Your task to perform on an android device: show emergency info Image 0: 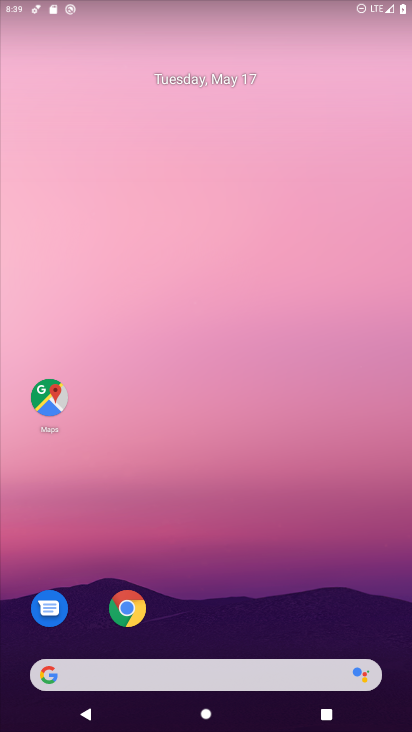
Step 0: drag from (248, 640) to (355, 56)
Your task to perform on an android device: show emergency info Image 1: 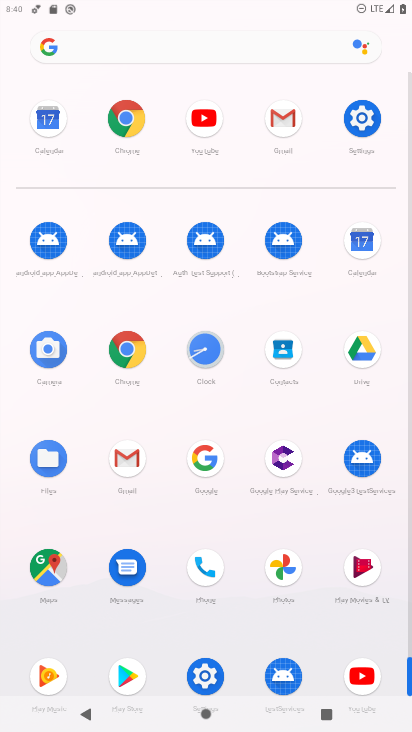
Step 1: click (207, 663)
Your task to perform on an android device: show emergency info Image 2: 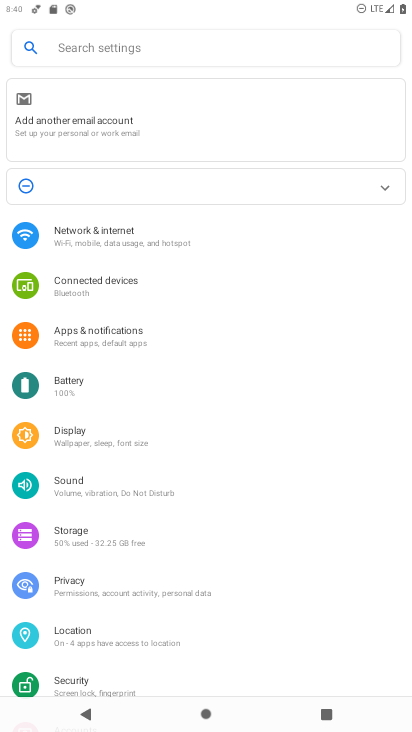
Step 2: drag from (183, 610) to (407, 1)
Your task to perform on an android device: show emergency info Image 3: 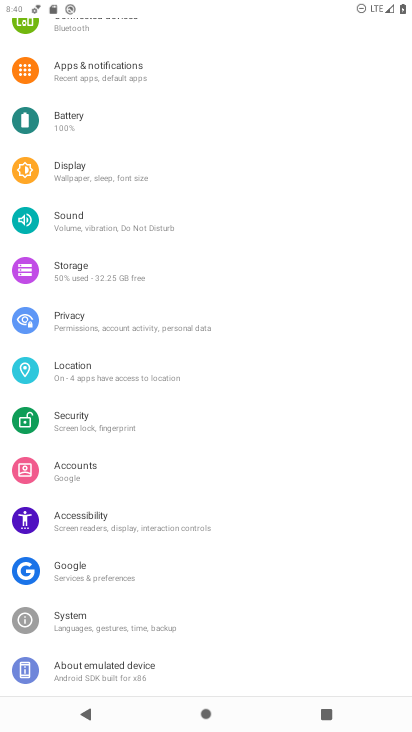
Step 3: click (106, 673)
Your task to perform on an android device: show emergency info Image 4: 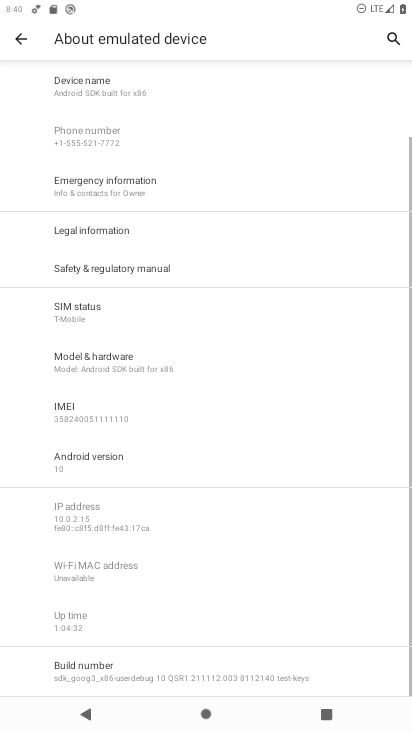
Step 4: click (132, 192)
Your task to perform on an android device: show emergency info Image 5: 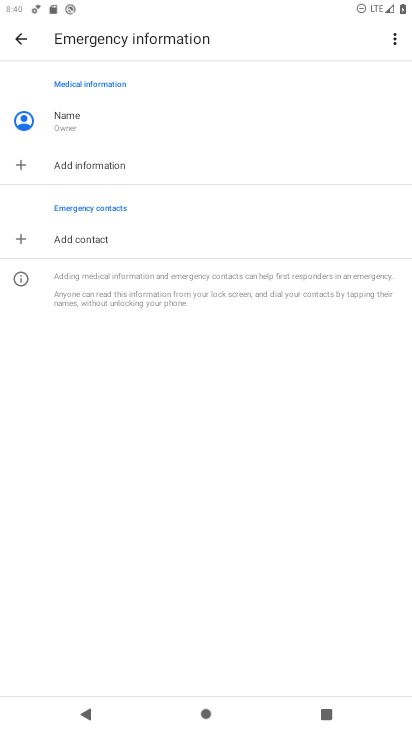
Step 5: task complete